Your task to perform on an android device: turn on the 12-hour format for clock Image 0: 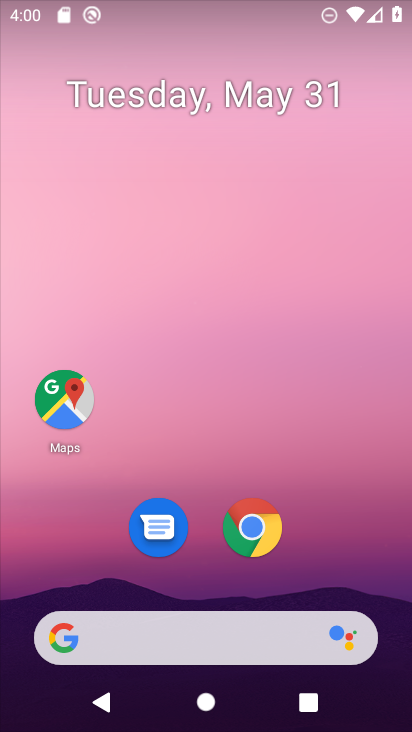
Step 0: drag from (231, 586) to (201, 42)
Your task to perform on an android device: turn on the 12-hour format for clock Image 1: 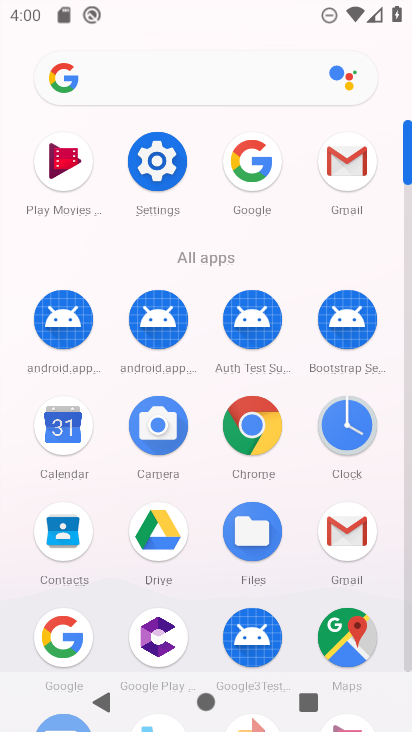
Step 1: click (334, 440)
Your task to perform on an android device: turn on the 12-hour format for clock Image 2: 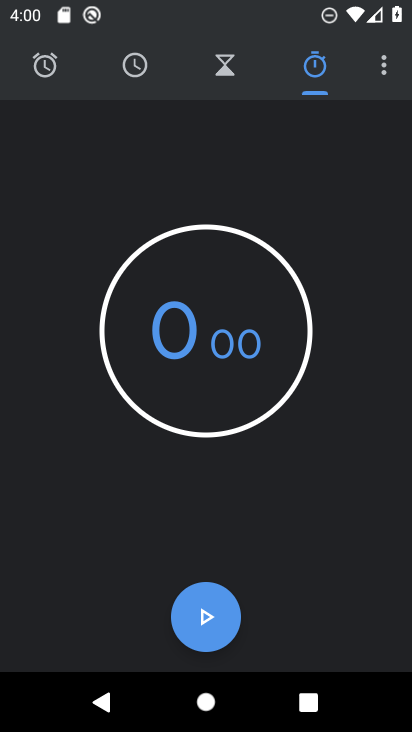
Step 2: click (382, 60)
Your task to perform on an android device: turn on the 12-hour format for clock Image 3: 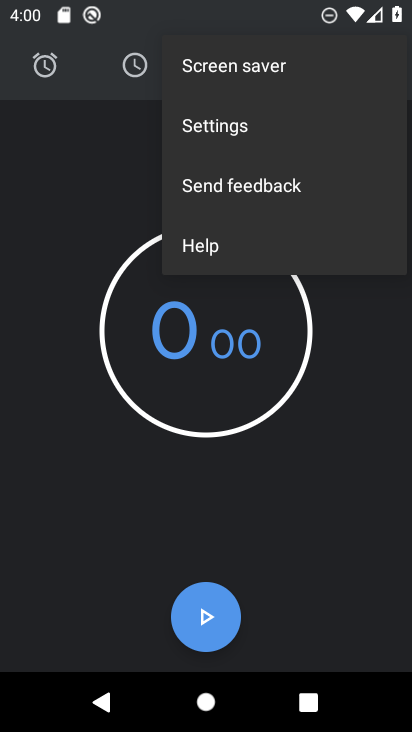
Step 3: click (256, 126)
Your task to perform on an android device: turn on the 12-hour format for clock Image 4: 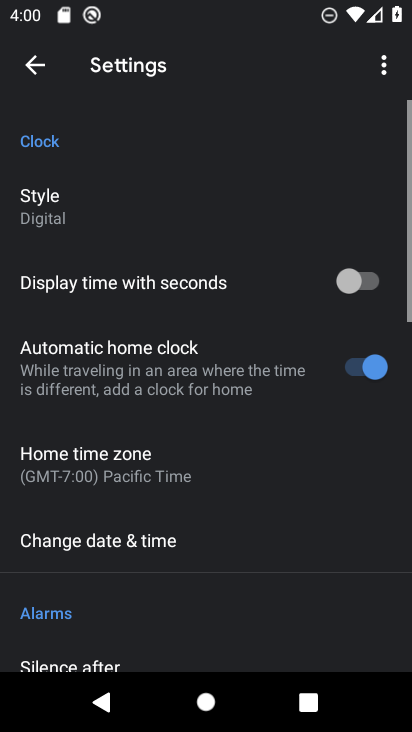
Step 4: click (175, 529)
Your task to perform on an android device: turn on the 12-hour format for clock Image 5: 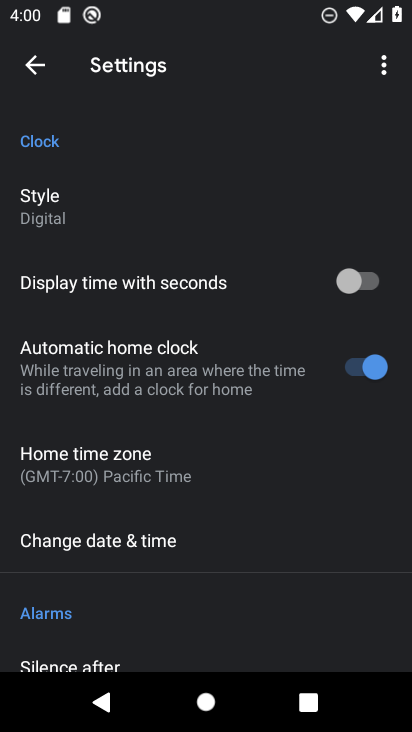
Step 5: task complete